Your task to perform on an android device: turn on location history Image 0: 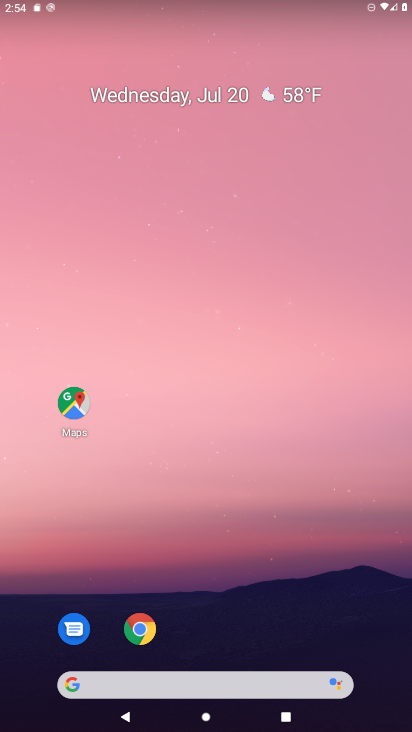
Step 0: press home button
Your task to perform on an android device: turn on location history Image 1: 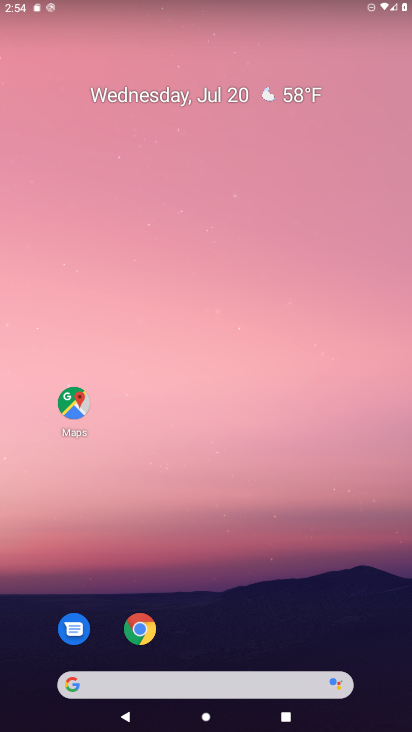
Step 1: click (68, 417)
Your task to perform on an android device: turn on location history Image 2: 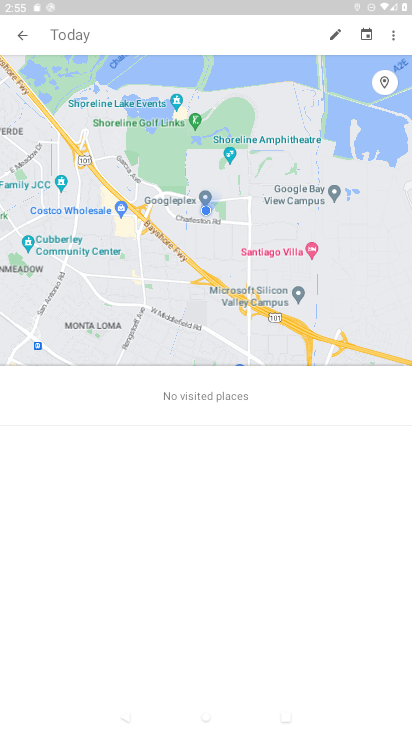
Step 2: click (394, 32)
Your task to perform on an android device: turn on location history Image 3: 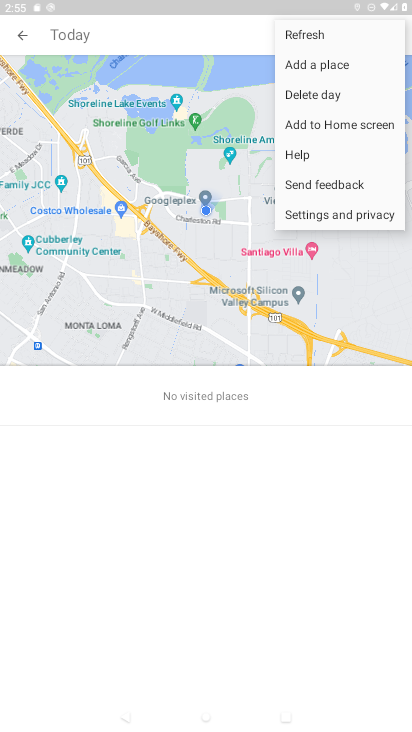
Step 3: click (349, 219)
Your task to perform on an android device: turn on location history Image 4: 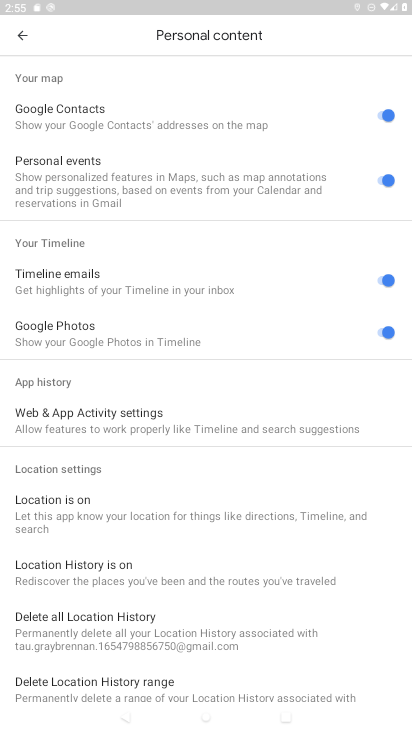
Step 4: click (69, 560)
Your task to perform on an android device: turn on location history Image 5: 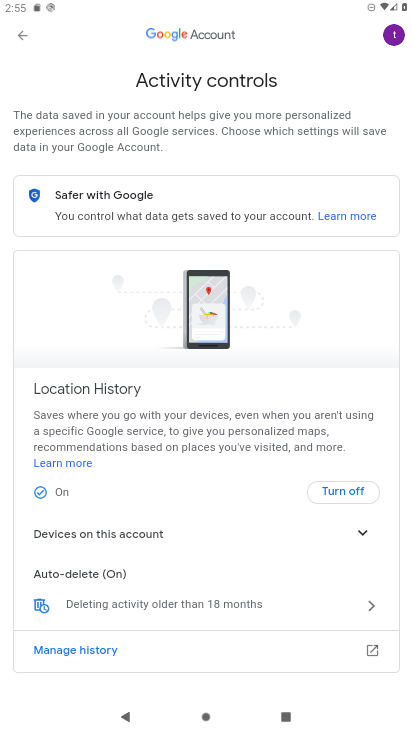
Step 5: task complete